Your task to perform on an android device: delete browsing data in the chrome app Image 0: 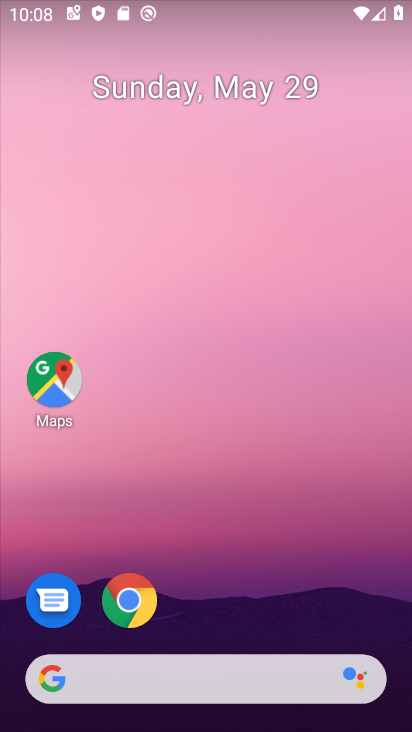
Step 0: click (128, 595)
Your task to perform on an android device: delete browsing data in the chrome app Image 1: 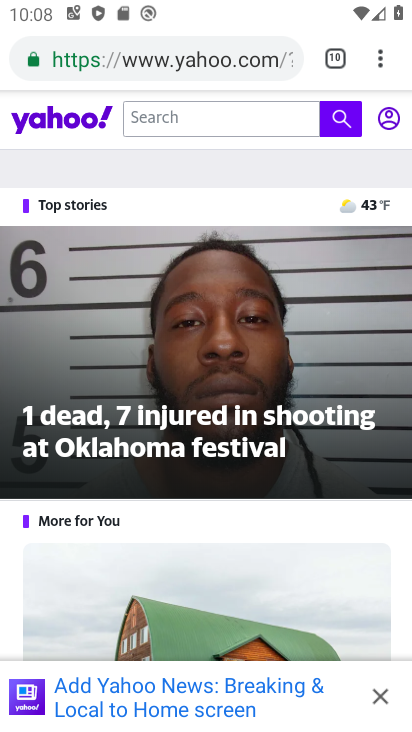
Step 1: click (381, 70)
Your task to perform on an android device: delete browsing data in the chrome app Image 2: 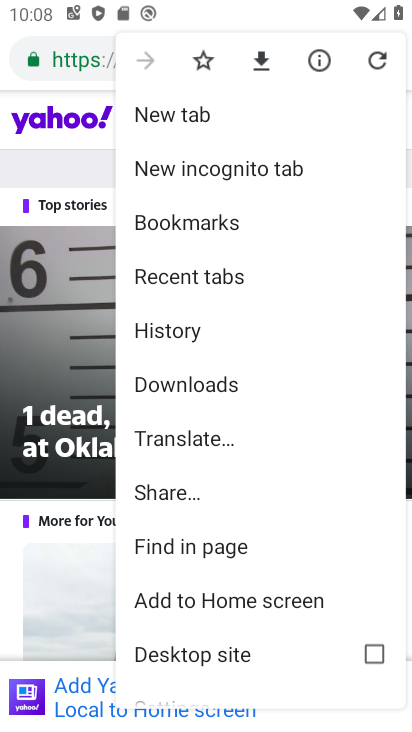
Step 2: click (186, 328)
Your task to perform on an android device: delete browsing data in the chrome app Image 3: 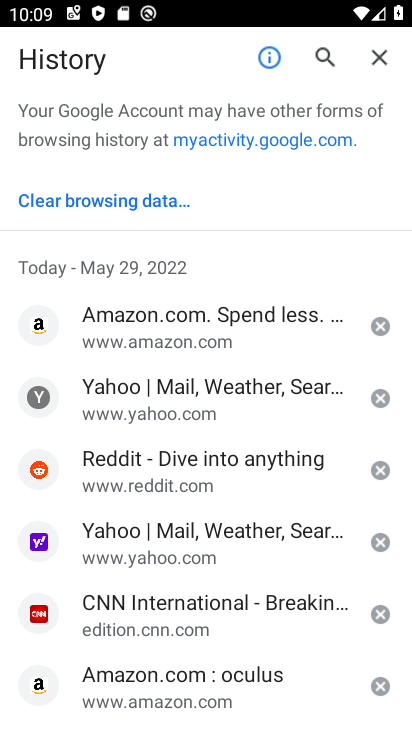
Step 3: click (146, 197)
Your task to perform on an android device: delete browsing data in the chrome app Image 4: 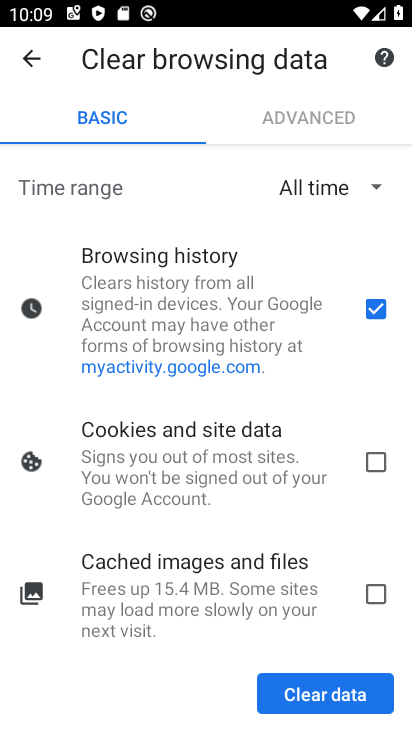
Step 4: click (336, 692)
Your task to perform on an android device: delete browsing data in the chrome app Image 5: 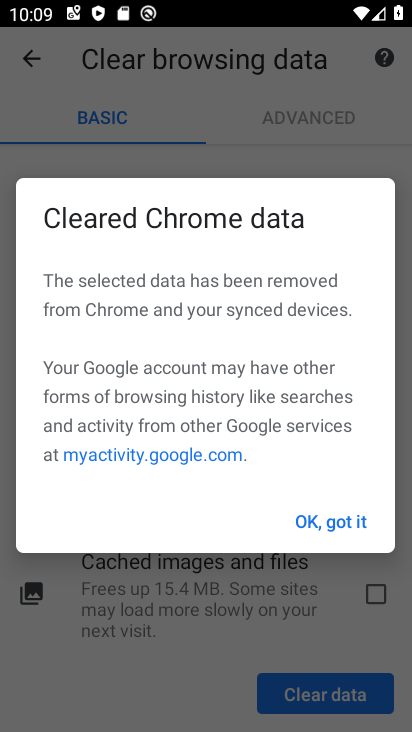
Step 5: click (332, 522)
Your task to perform on an android device: delete browsing data in the chrome app Image 6: 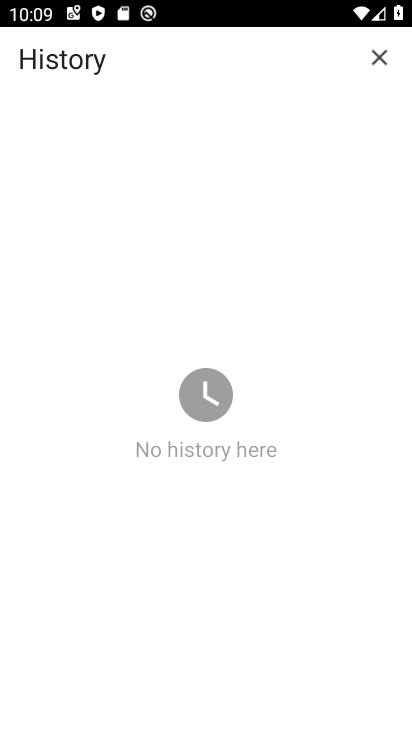
Step 6: task complete